Your task to perform on an android device: turn notification dots off Image 0: 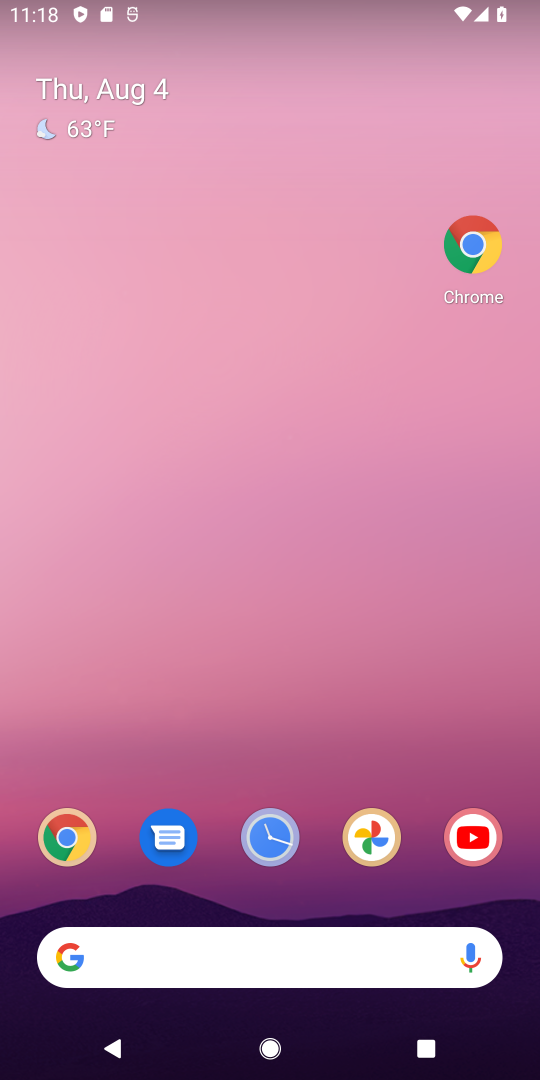
Step 0: press home button
Your task to perform on an android device: turn notification dots off Image 1: 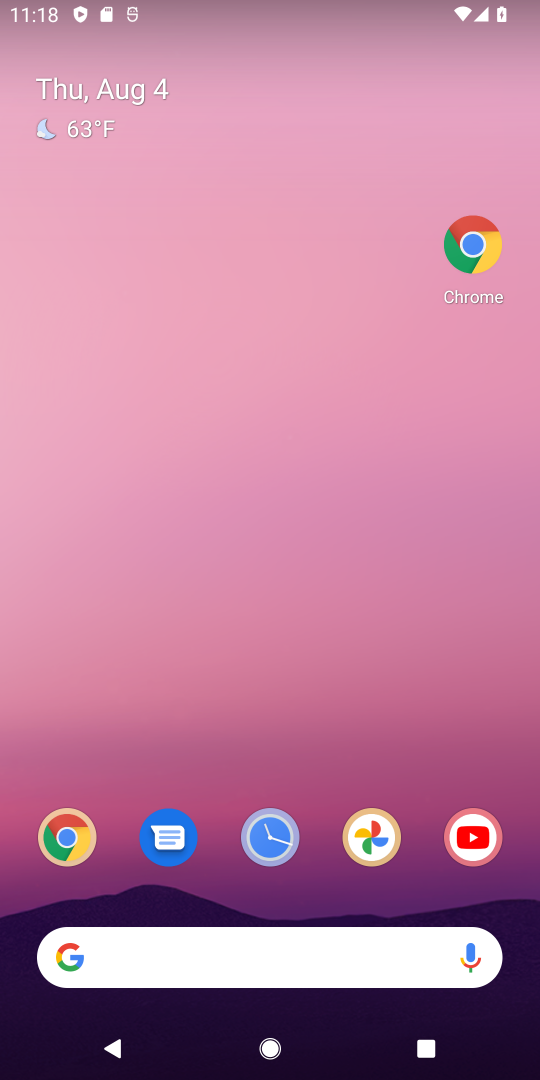
Step 1: press home button
Your task to perform on an android device: turn notification dots off Image 2: 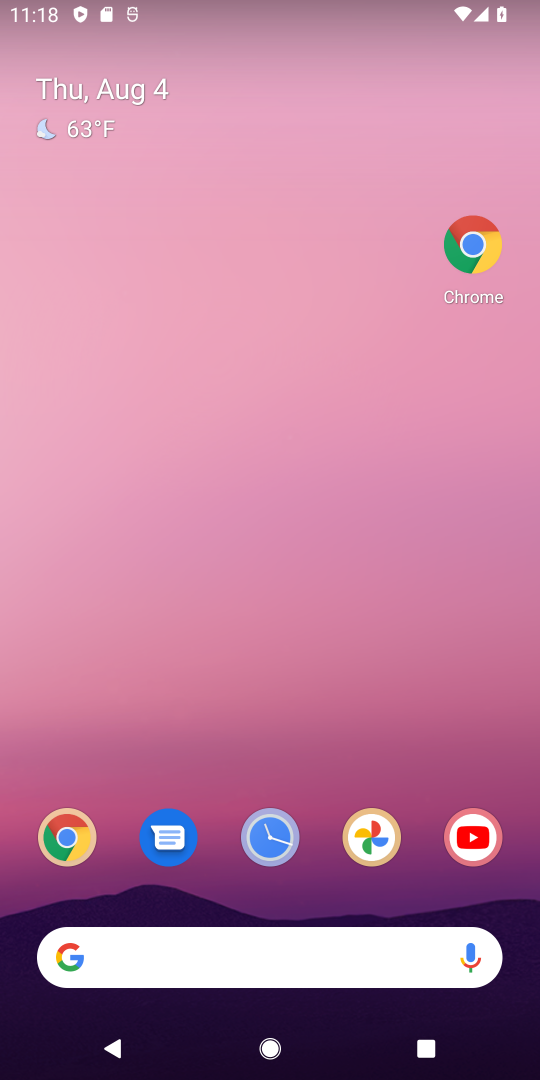
Step 2: drag from (322, 895) to (342, 22)
Your task to perform on an android device: turn notification dots off Image 3: 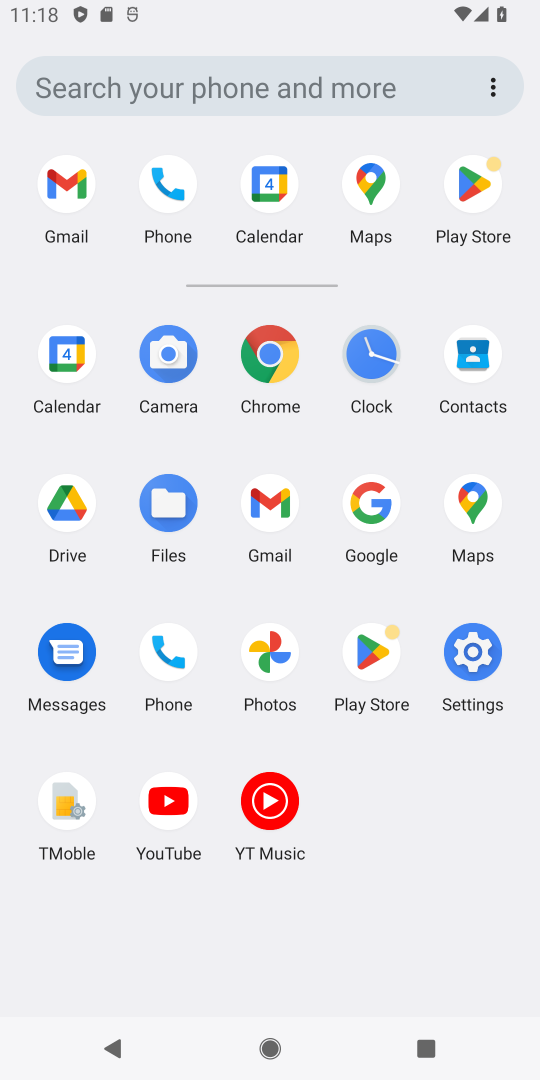
Step 3: click (469, 645)
Your task to perform on an android device: turn notification dots off Image 4: 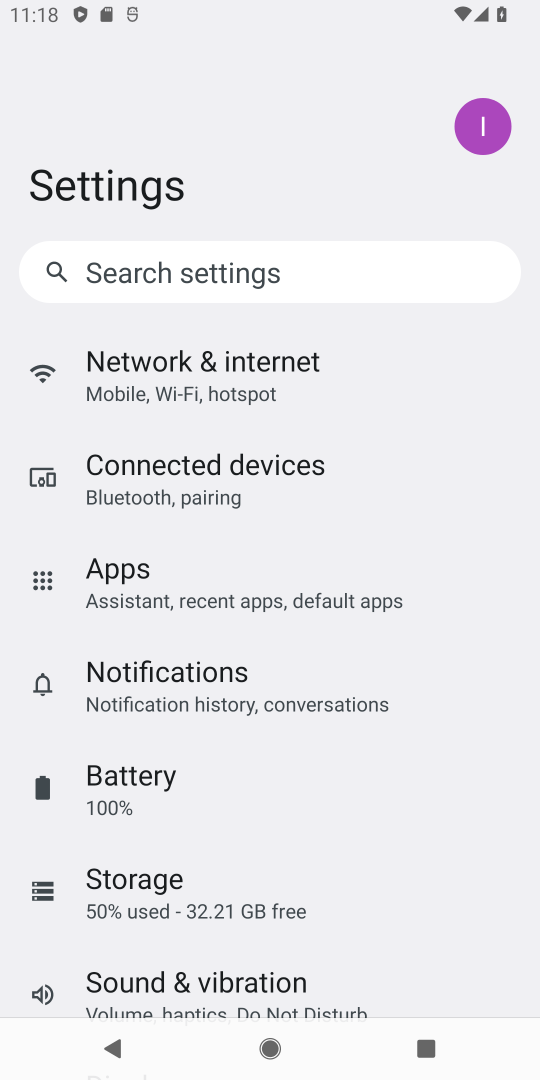
Step 4: click (263, 680)
Your task to perform on an android device: turn notification dots off Image 5: 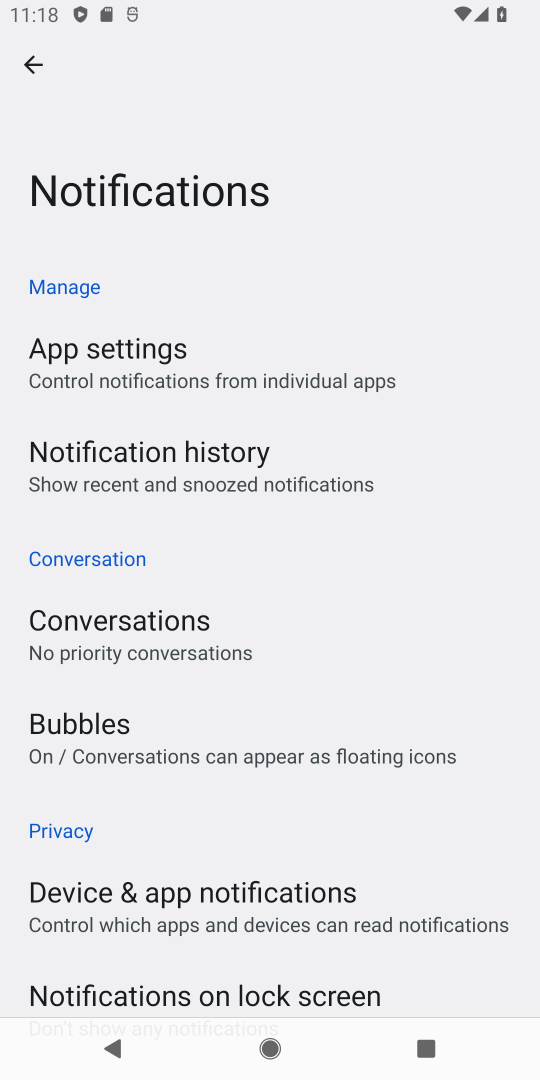
Step 5: drag from (329, 949) to (409, 201)
Your task to perform on an android device: turn notification dots off Image 6: 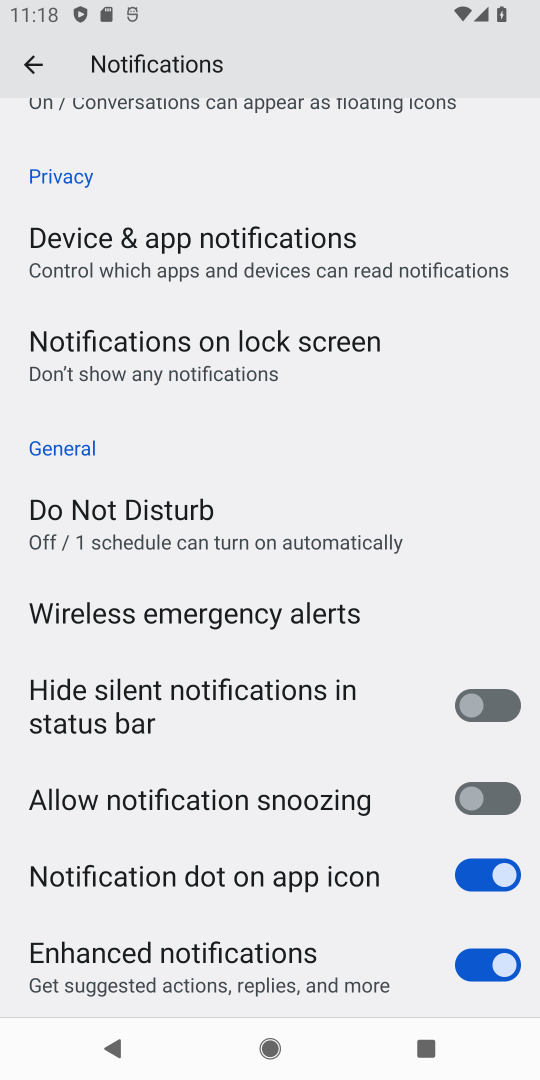
Step 6: click (483, 871)
Your task to perform on an android device: turn notification dots off Image 7: 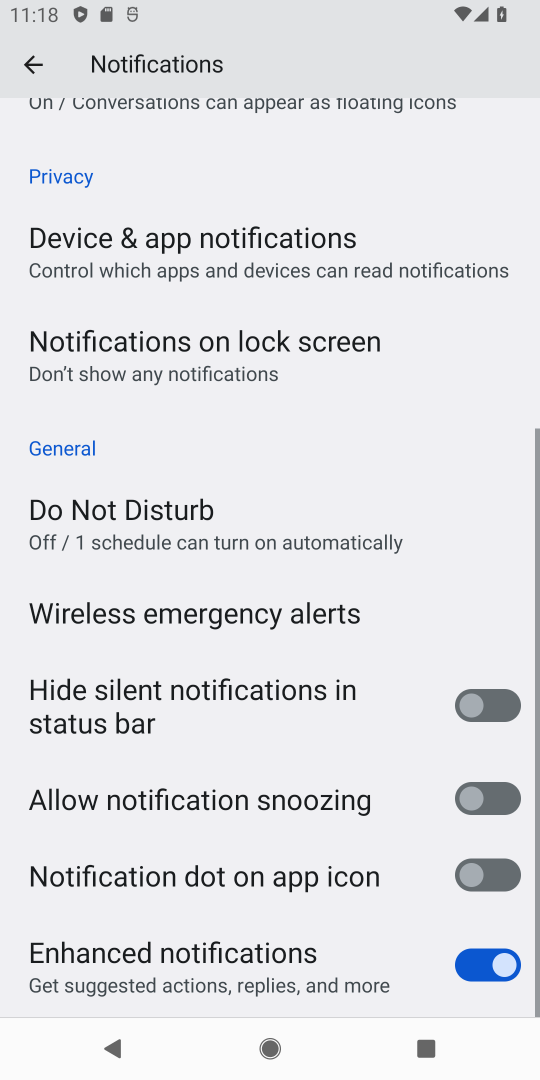
Step 7: task complete